Your task to perform on an android device: Is it going to rain this weekend? Image 0: 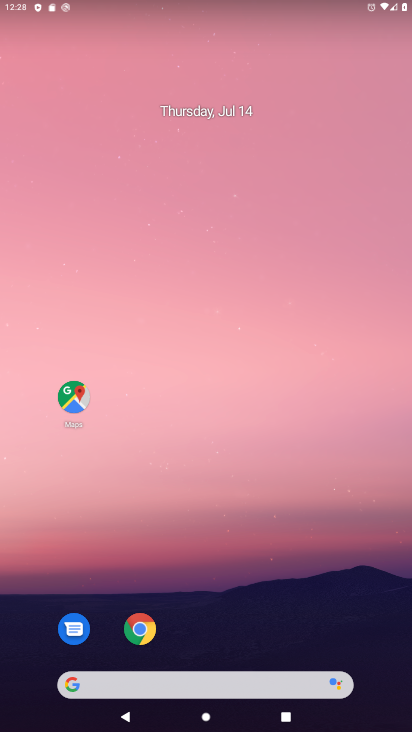
Step 0: click (212, 689)
Your task to perform on an android device: Is it going to rain this weekend? Image 1: 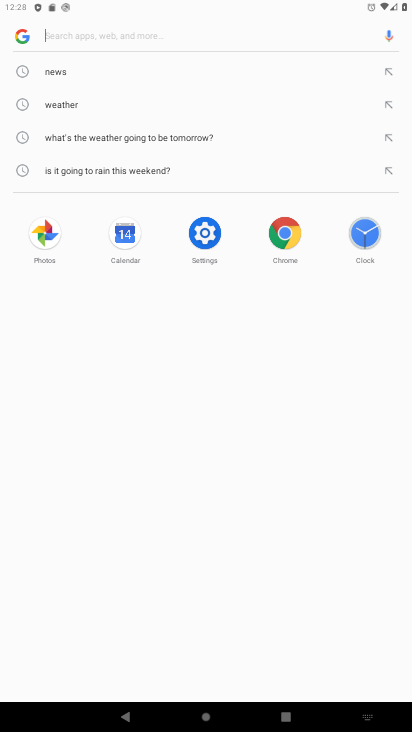
Step 1: click (51, 102)
Your task to perform on an android device: Is it going to rain this weekend? Image 2: 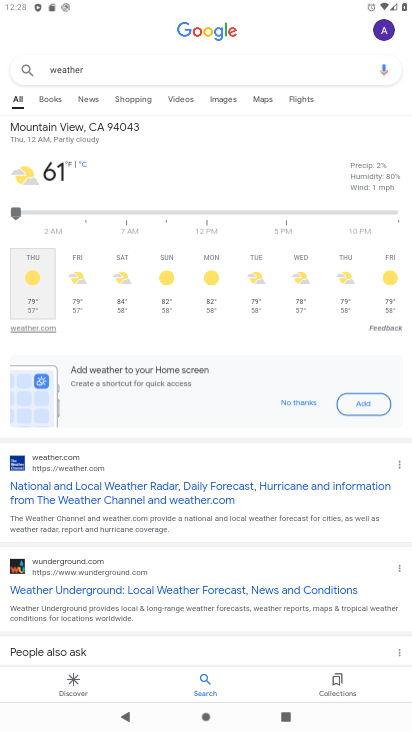
Step 2: drag from (338, 266) to (148, 274)
Your task to perform on an android device: Is it going to rain this weekend? Image 3: 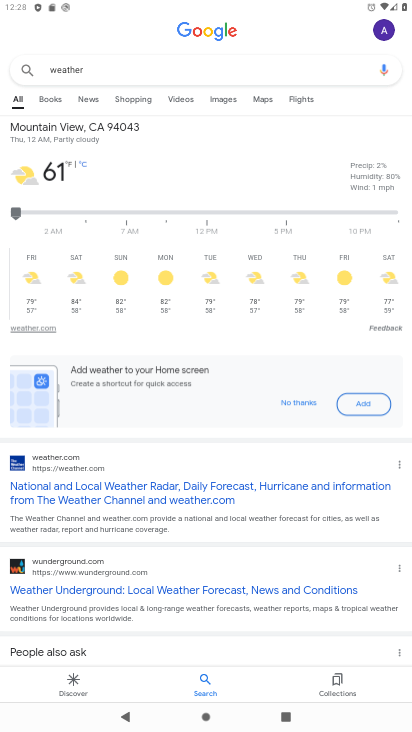
Step 3: click (148, 274)
Your task to perform on an android device: Is it going to rain this weekend? Image 4: 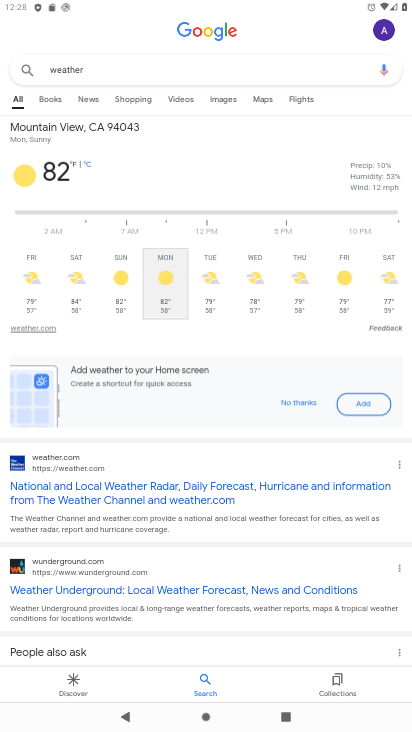
Step 4: click (221, 277)
Your task to perform on an android device: Is it going to rain this weekend? Image 5: 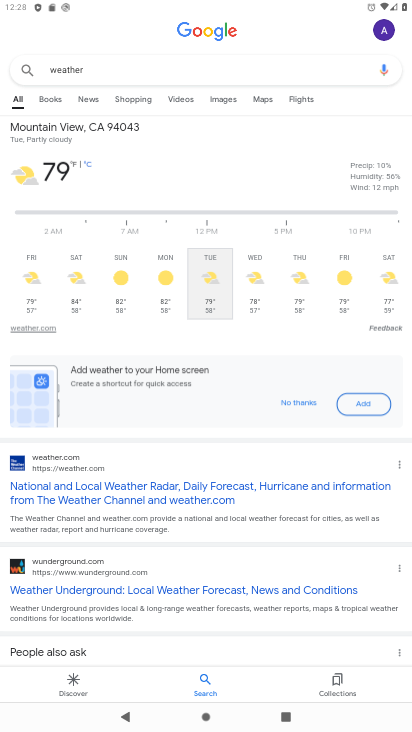
Step 5: click (255, 278)
Your task to perform on an android device: Is it going to rain this weekend? Image 6: 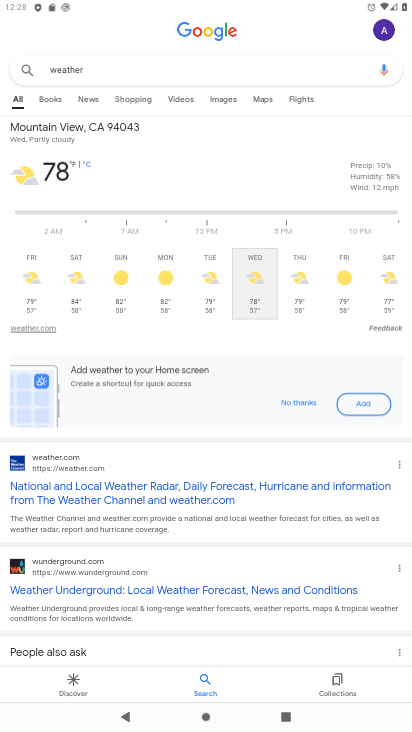
Step 6: task complete